Your task to perform on an android device: Open settings Image 0: 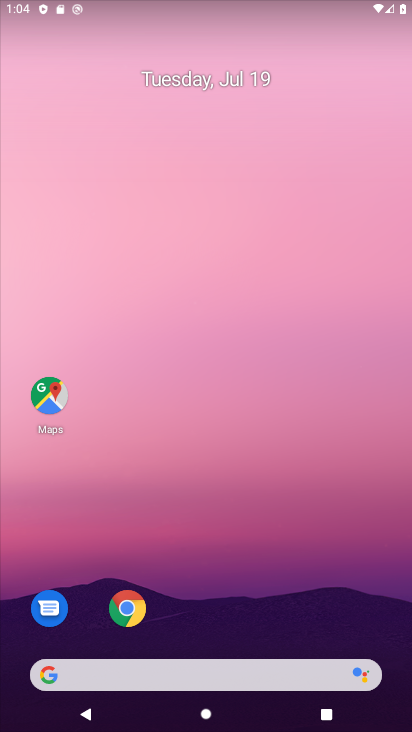
Step 0: drag from (182, 619) to (208, 78)
Your task to perform on an android device: Open settings Image 1: 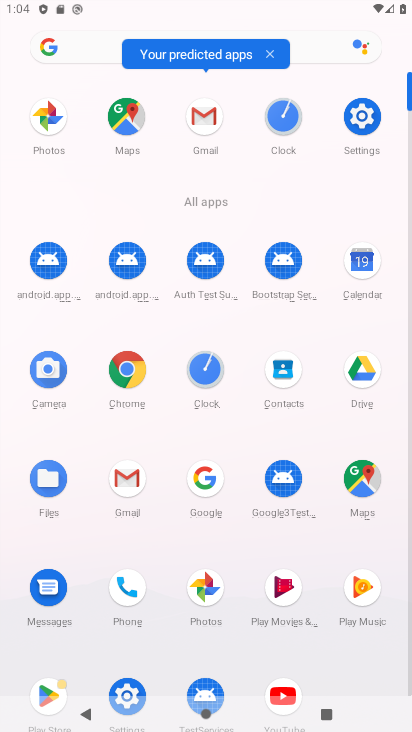
Step 1: click (361, 118)
Your task to perform on an android device: Open settings Image 2: 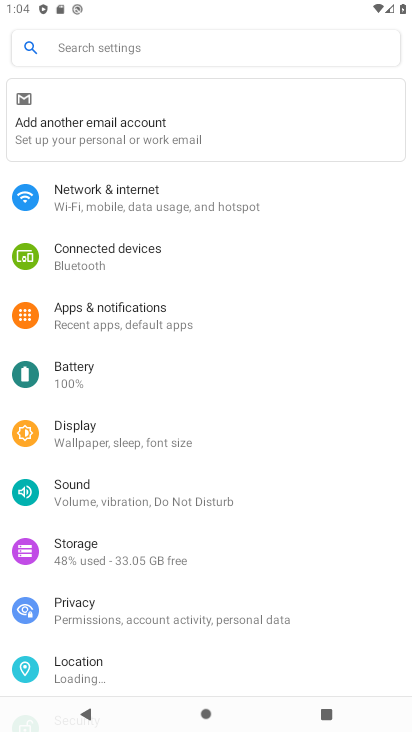
Step 2: task complete